Your task to perform on an android device: refresh tabs in the chrome app Image 0: 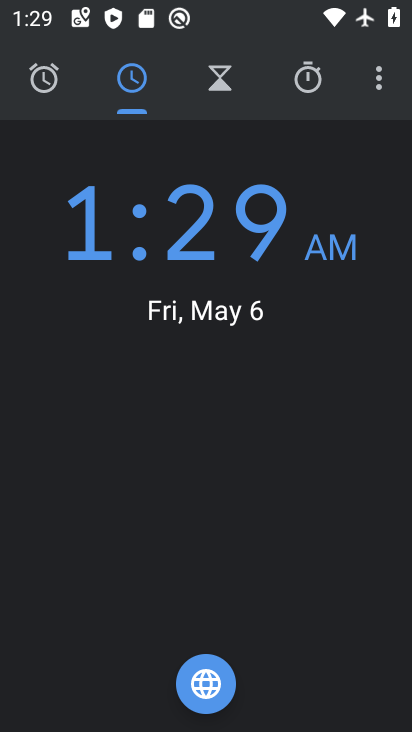
Step 0: press home button
Your task to perform on an android device: refresh tabs in the chrome app Image 1: 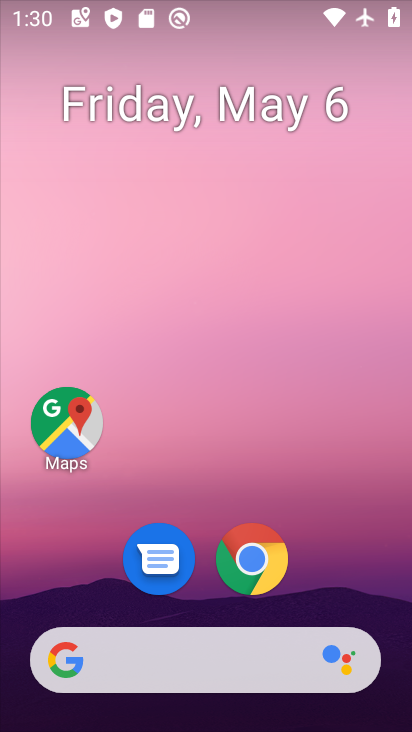
Step 1: drag from (167, 657) to (318, 71)
Your task to perform on an android device: refresh tabs in the chrome app Image 2: 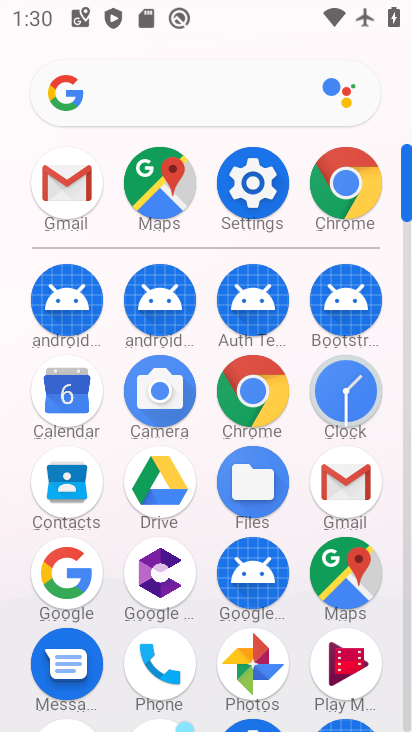
Step 2: click (351, 192)
Your task to perform on an android device: refresh tabs in the chrome app Image 3: 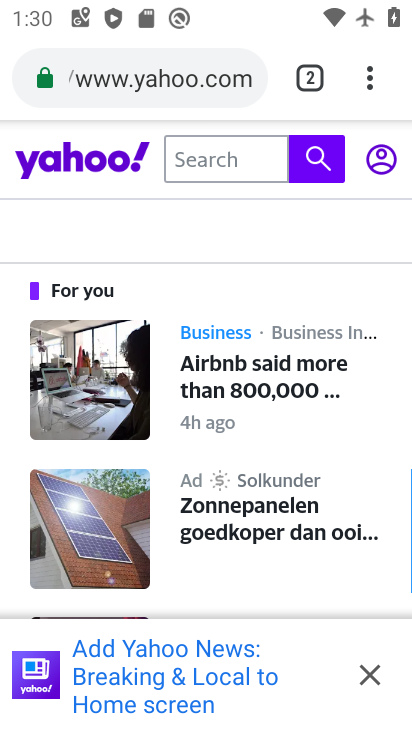
Step 3: click (368, 84)
Your task to perform on an android device: refresh tabs in the chrome app Image 4: 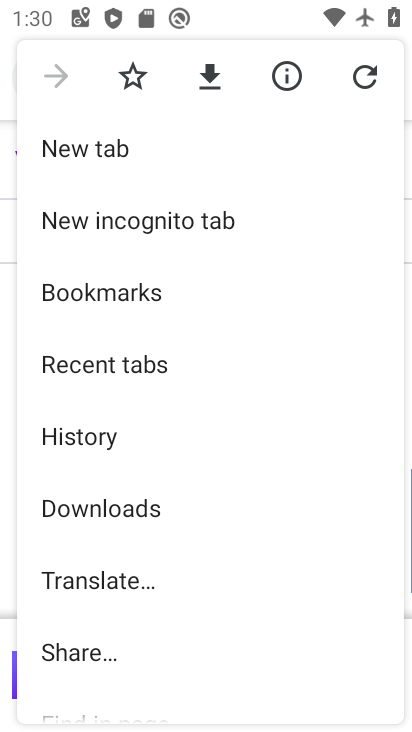
Step 4: click (358, 84)
Your task to perform on an android device: refresh tabs in the chrome app Image 5: 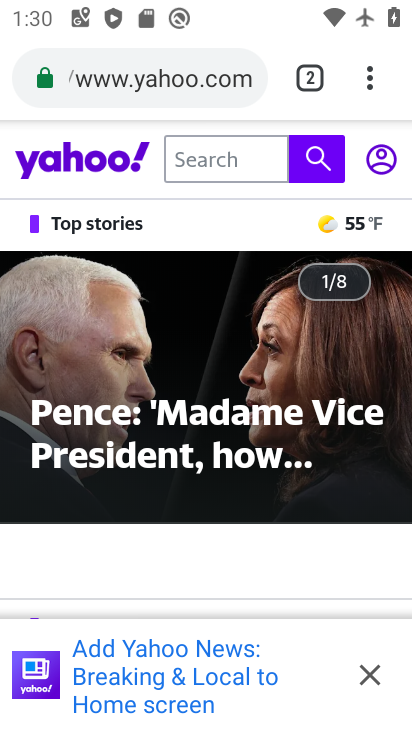
Step 5: task complete